Your task to perform on an android device: Turn off the flashlight Image 0: 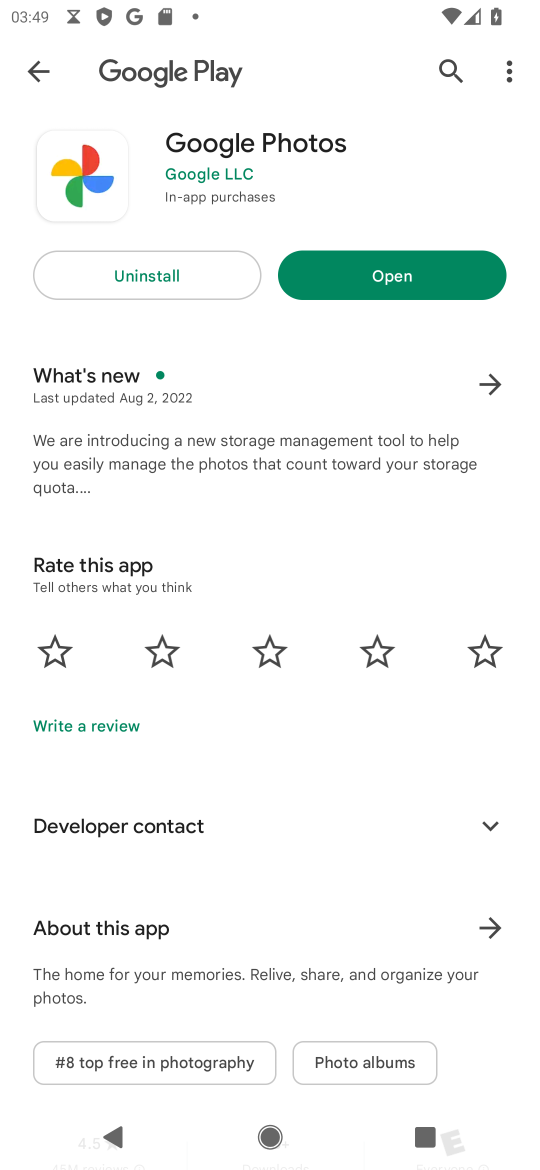
Step 0: press home button
Your task to perform on an android device: Turn off the flashlight Image 1: 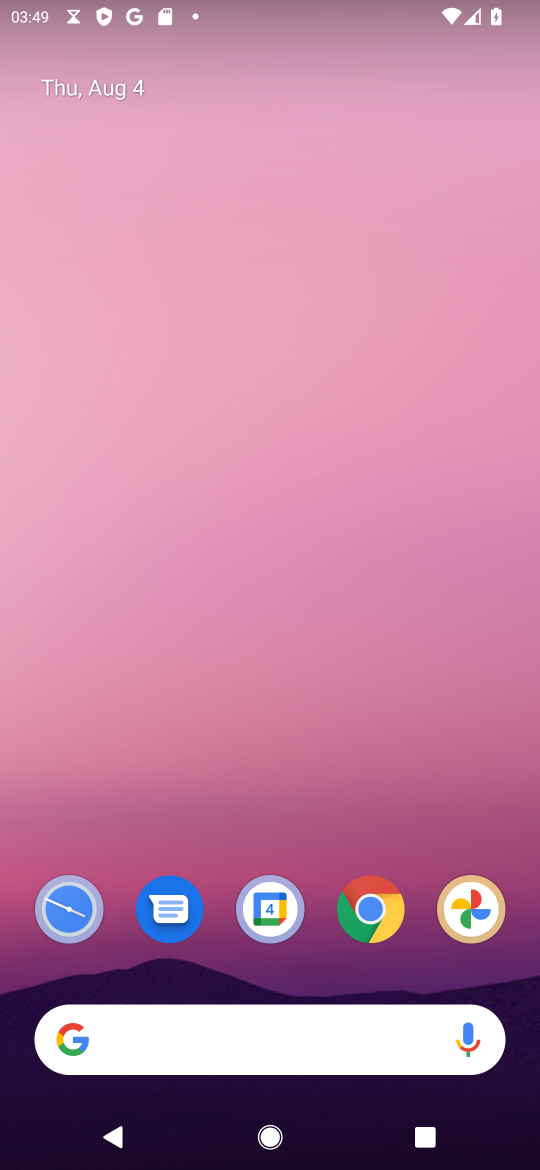
Step 1: task complete